Your task to perform on an android device: Open Google Maps Image 0: 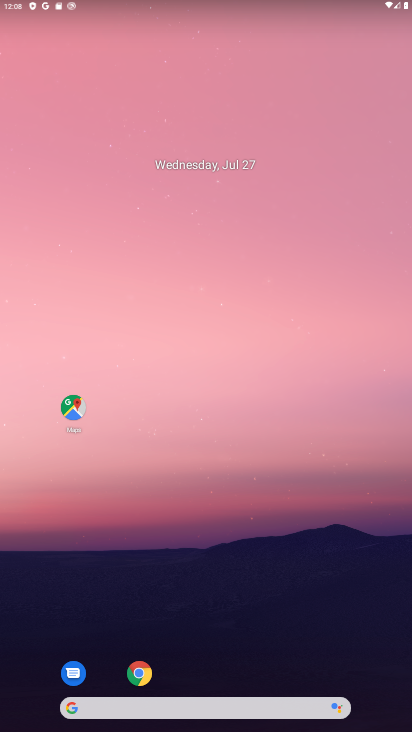
Step 0: click (74, 415)
Your task to perform on an android device: Open Google Maps Image 1: 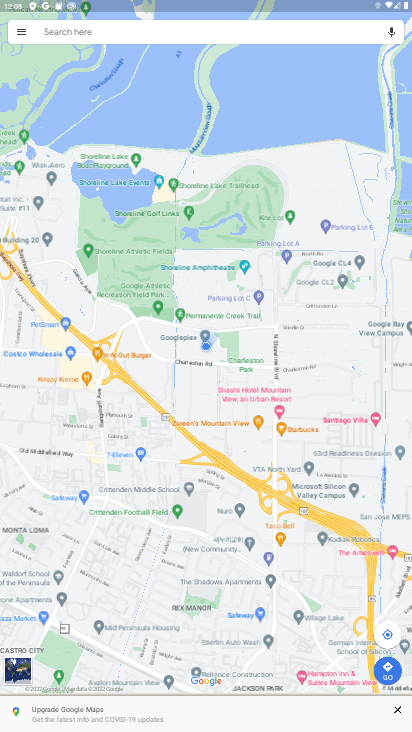
Step 1: task complete